Your task to perform on an android device: empty trash in google photos Image 0: 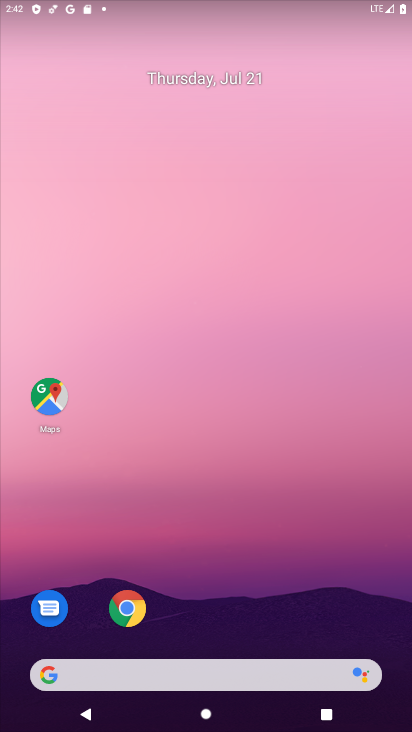
Step 0: drag from (215, 642) to (204, 126)
Your task to perform on an android device: empty trash in google photos Image 1: 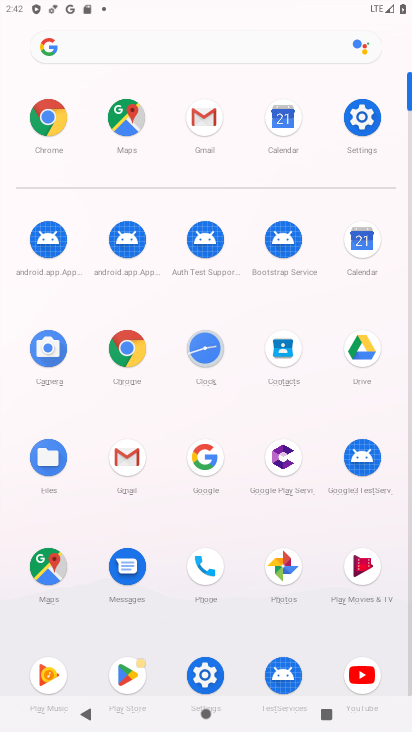
Step 1: click (288, 576)
Your task to perform on an android device: empty trash in google photos Image 2: 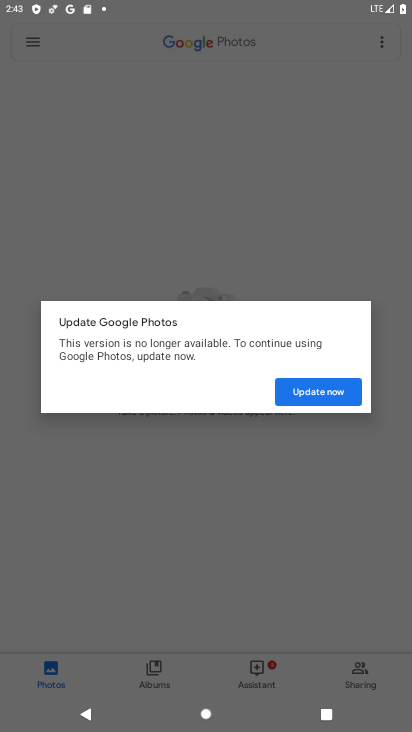
Step 2: click (329, 454)
Your task to perform on an android device: empty trash in google photos Image 3: 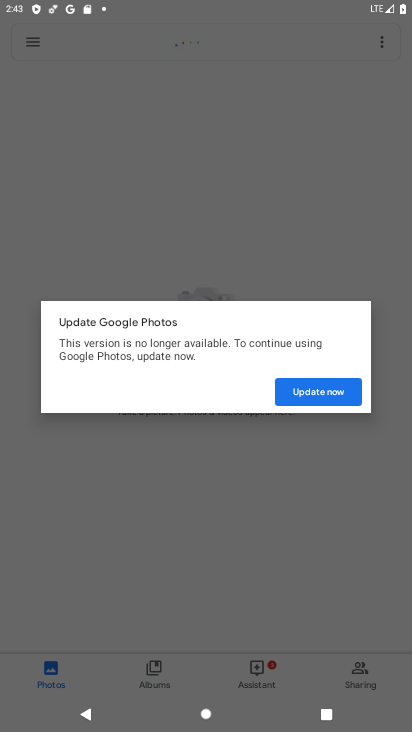
Step 3: click (308, 399)
Your task to perform on an android device: empty trash in google photos Image 4: 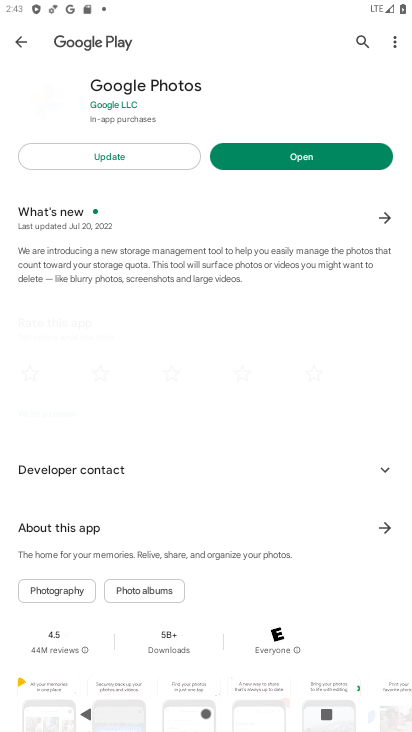
Step 4: click (299, 158)
Your task to perform on an android device: empty trash in google photos Image 5: 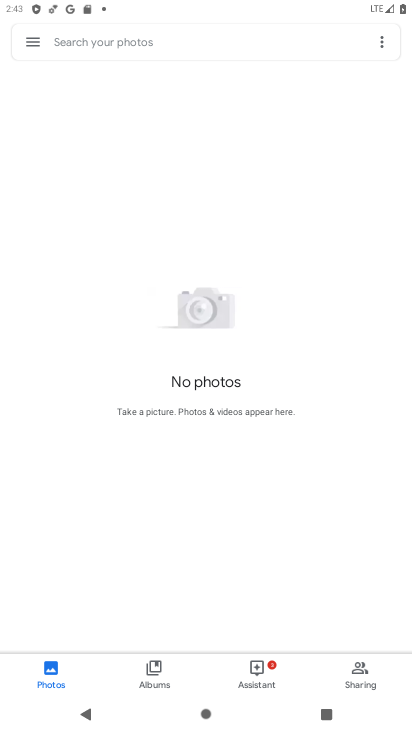
Step 5: click (33, 44)
Your task to perform on an android device: empty trash in google photos Image 6: 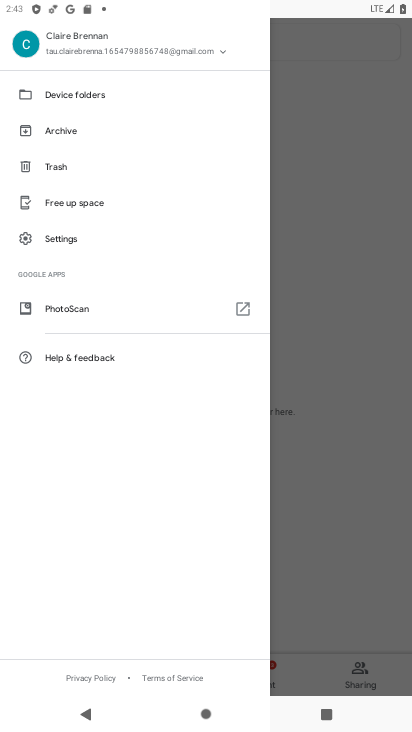
Step 6: click (70, 238)
Your task to perform on an android device: empty trash in google photos Image 7: 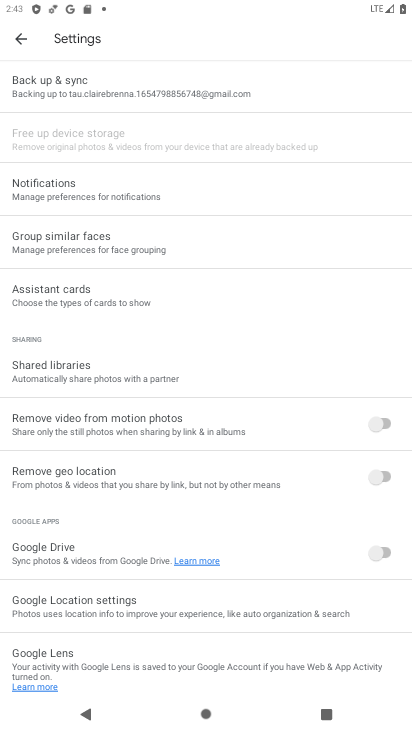
Step 7: click (22, 31)
Your task to perform on an android device: empty trash in google photos Image 8: 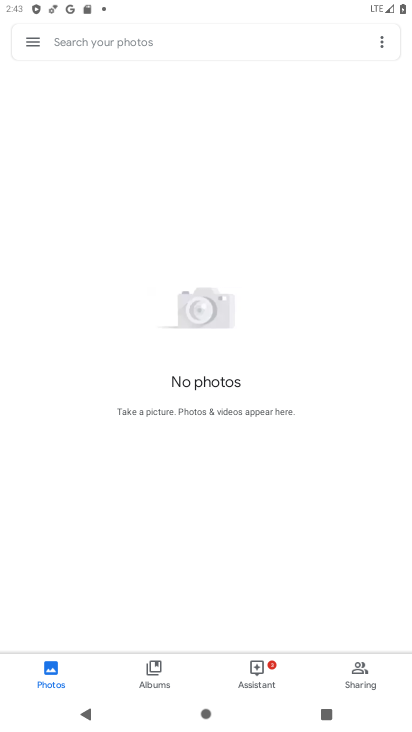
Step 8: click (30, 43)
Your task to perform on an android device: empty trash in google photos Image 9: 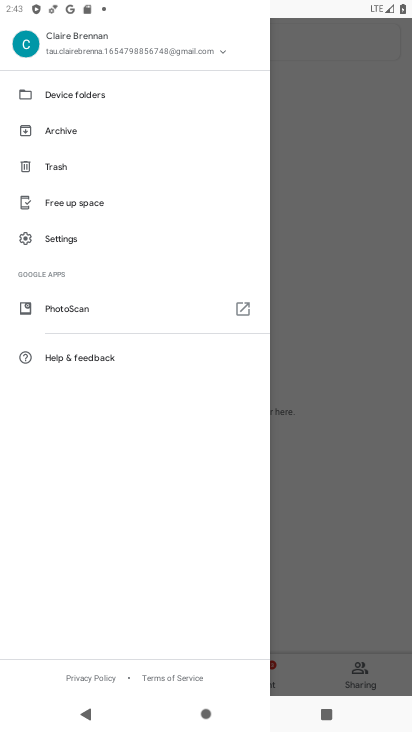
Step 9: click (49, 168)
Your task to perform on an android device: empty trash in google photos Image 10: 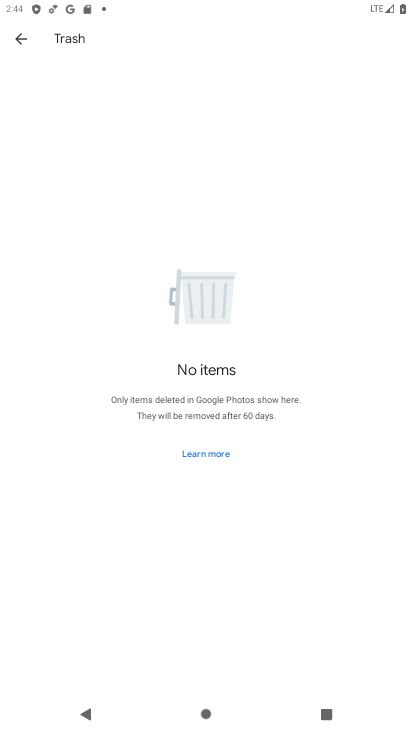
Step 10: task complete